Your task to perform on an android device: open a bookmark in the chrome app Image 0: 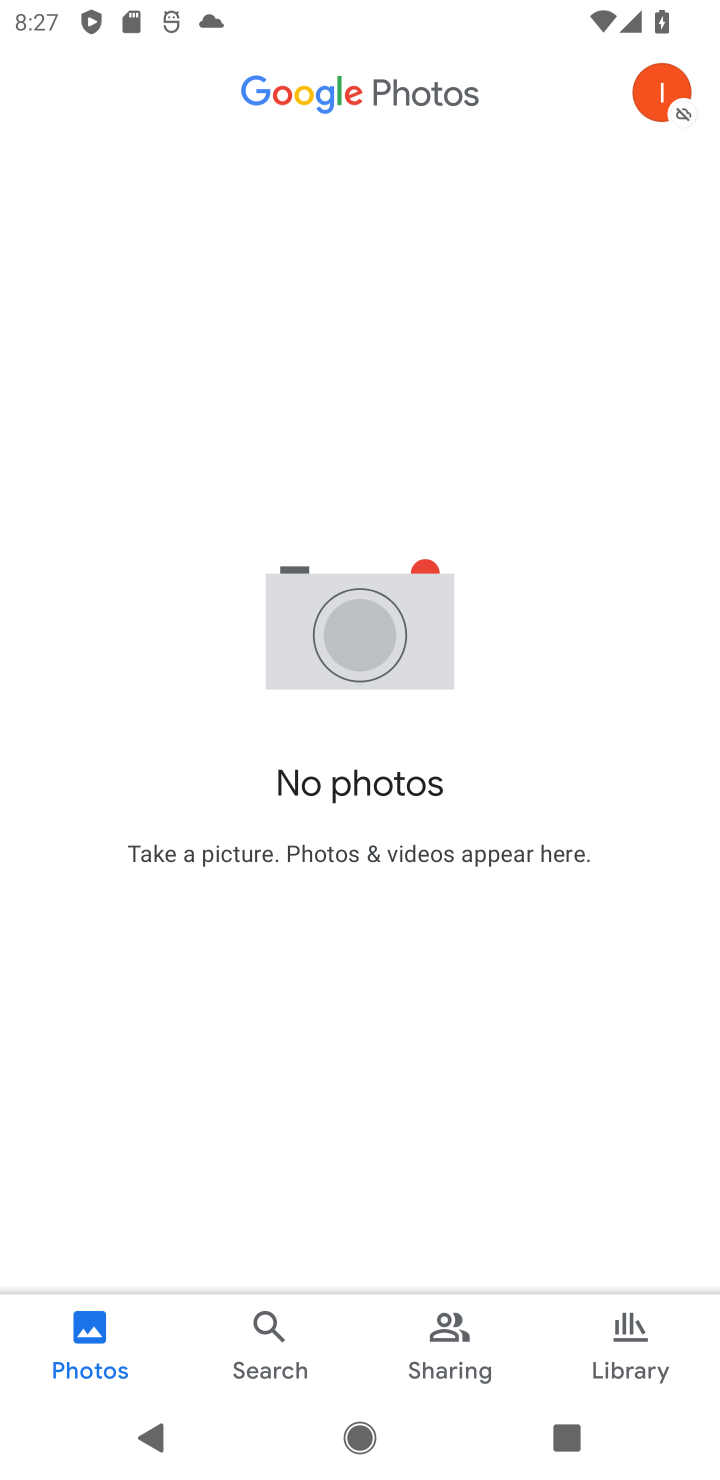
Step 0: press back button
Your task to perform on an android device: open a bookmark in the chrome app Image 1: 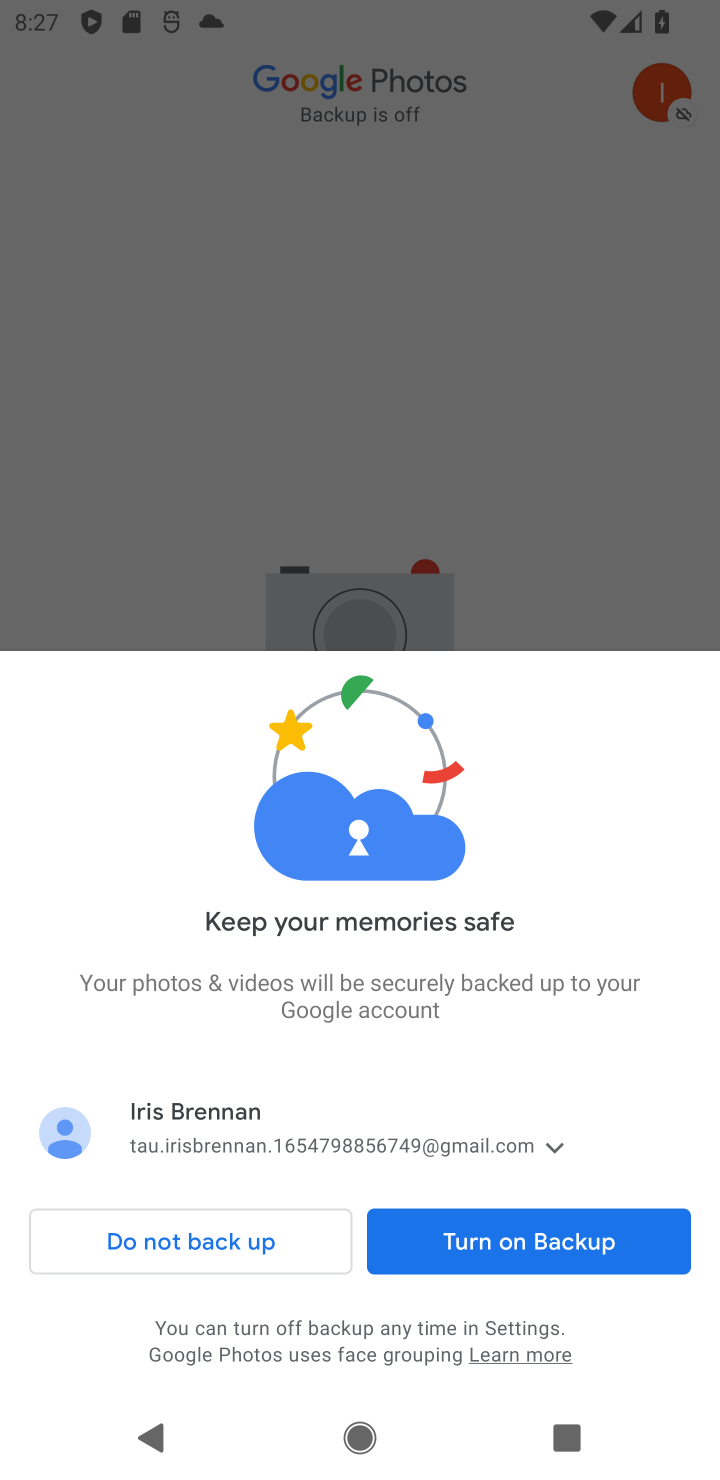
Step 1: press home button
Your task to perform on an android device: open a bookmark in the chrome app Image 2: 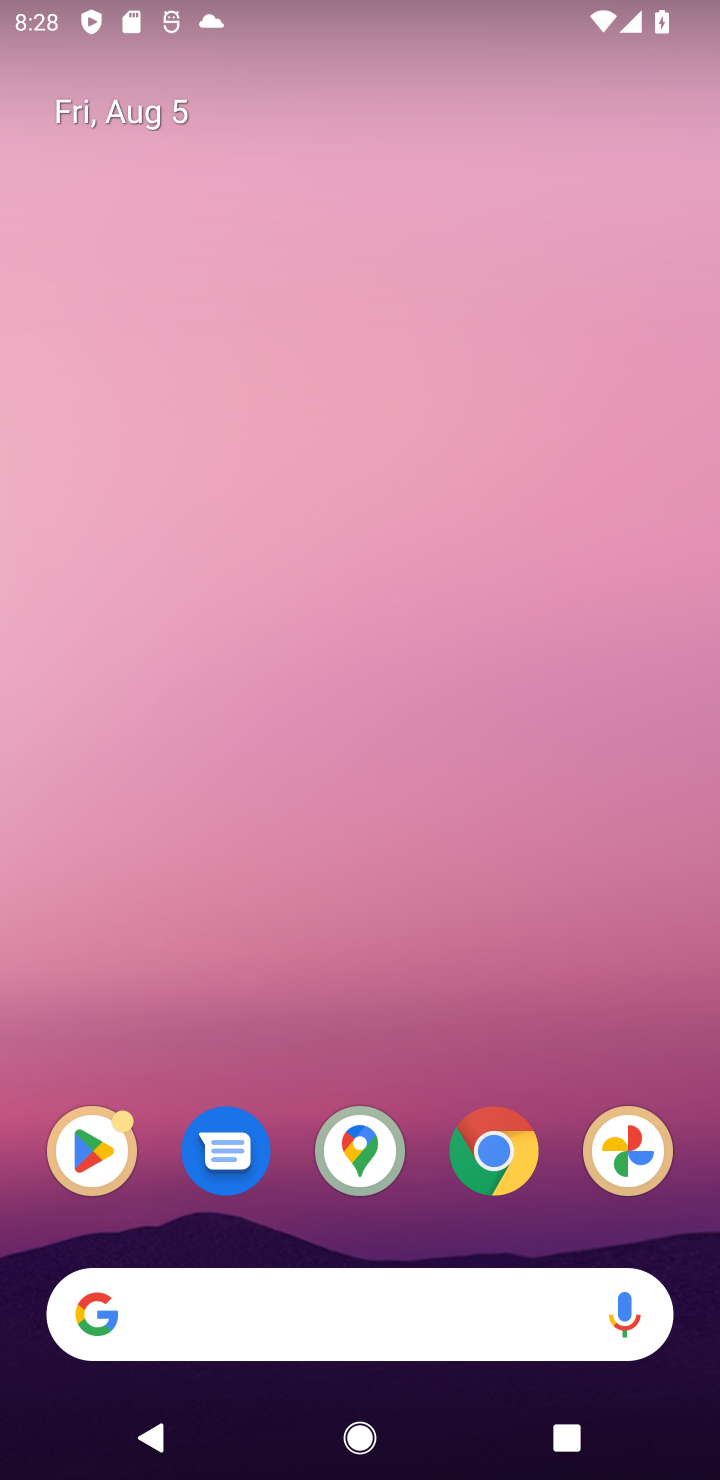
Step 2: click (487, 1147)
Your task to perform on an android device: open a bookmark in the chrome app Image 3: 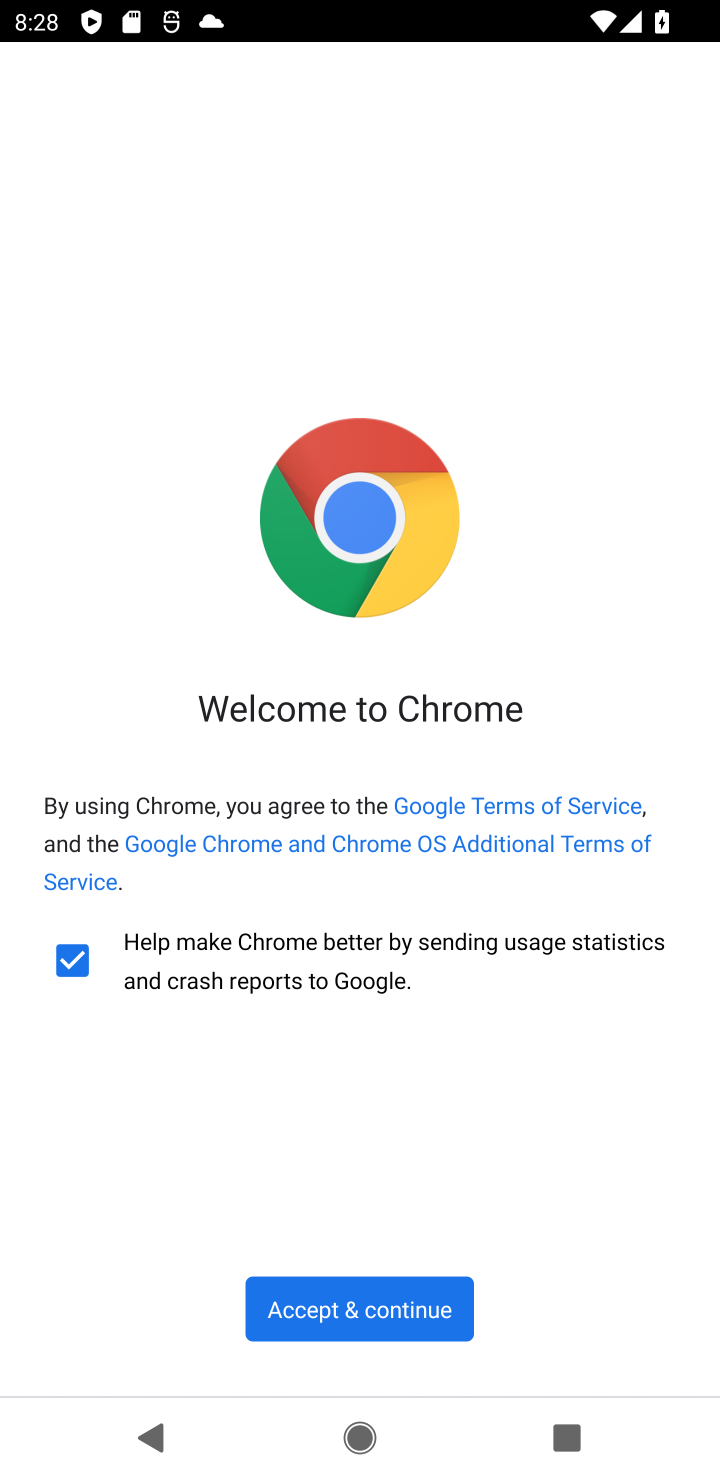
Step 3: click (341, 1297)
Your task to perform on an android device: open a bookmark in the chrome app Image 4: 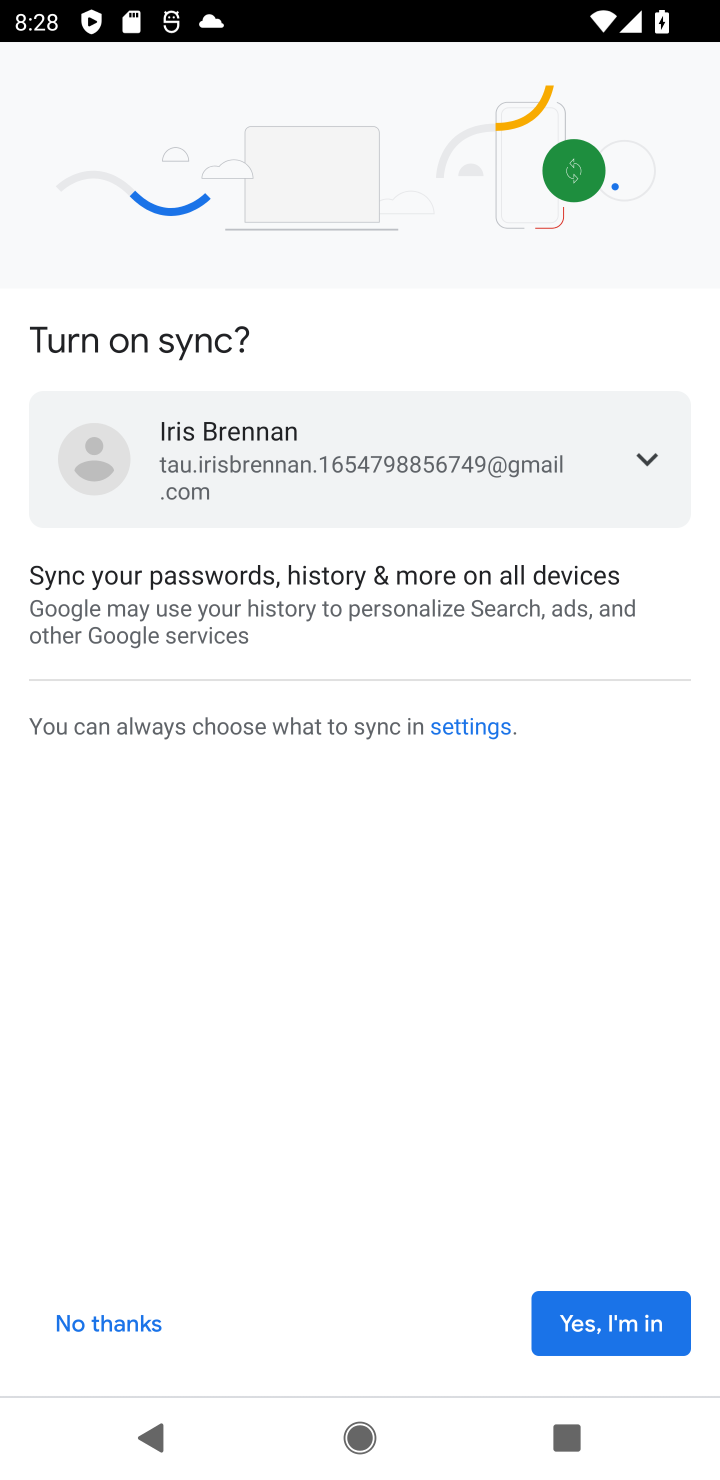
Step 4: click (576, 1325)
Your task to perform on an android device: open a bookmark in the chrome app Image 5: 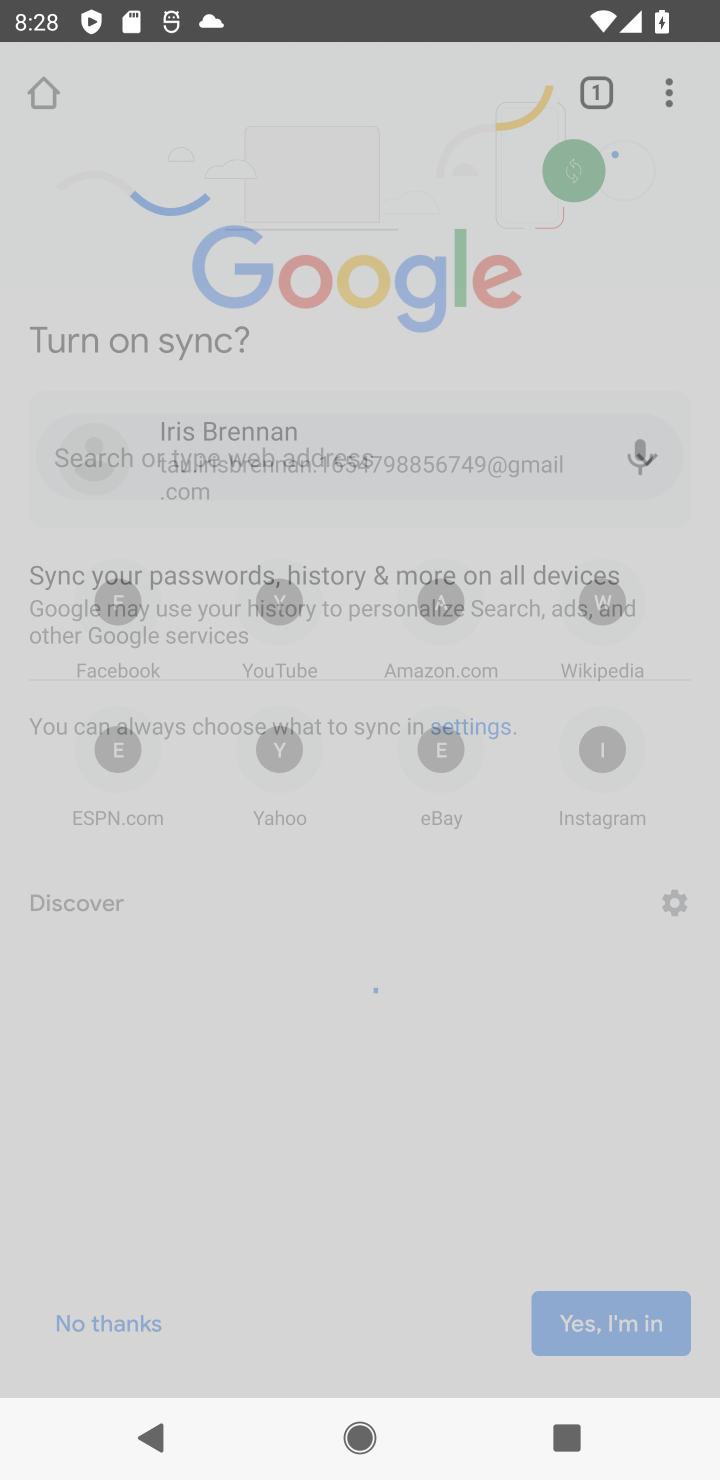
Step 5: click (576, 1325)
Your task to perform on an android device: open a bookmark in the chrome app Image 6: 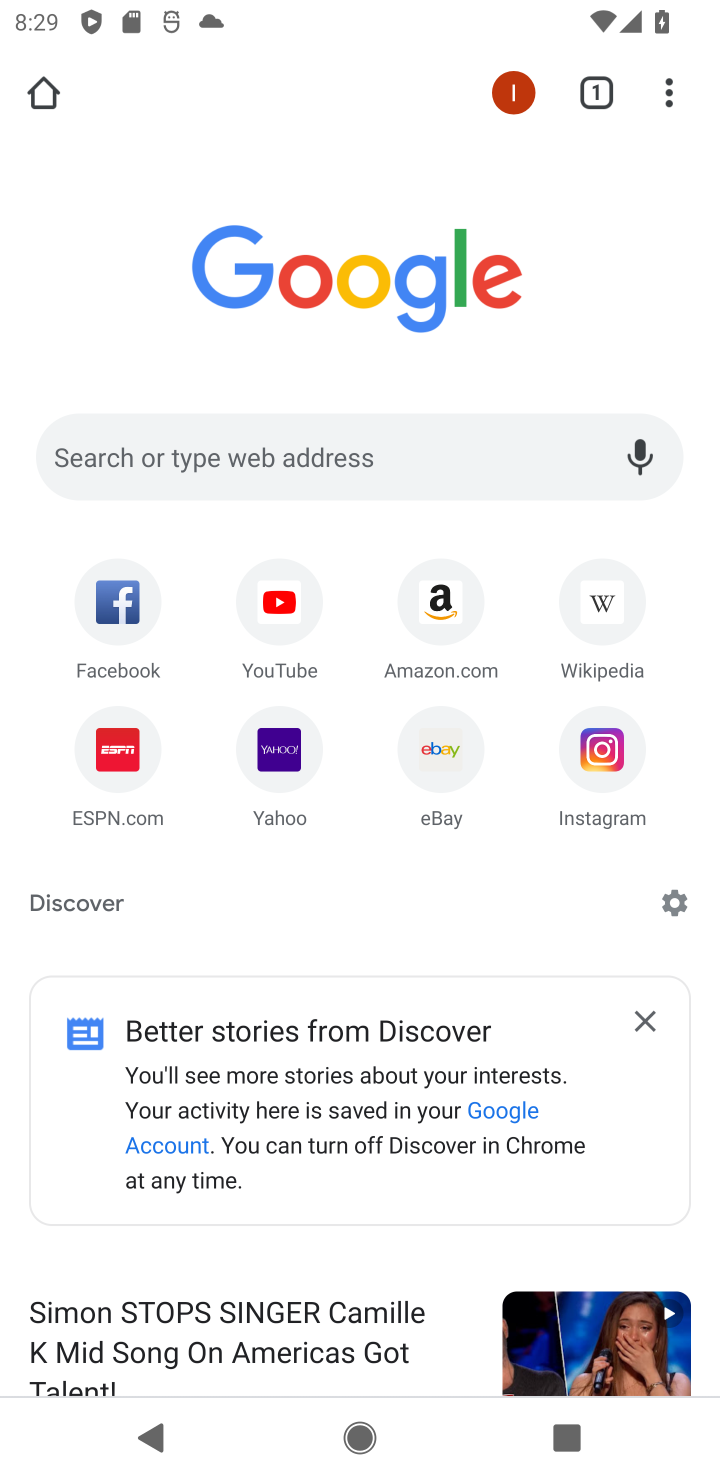
Step 6: click (666, 97)
Your task to perform on an android device: open a bookmark in the chrome app Image 7: 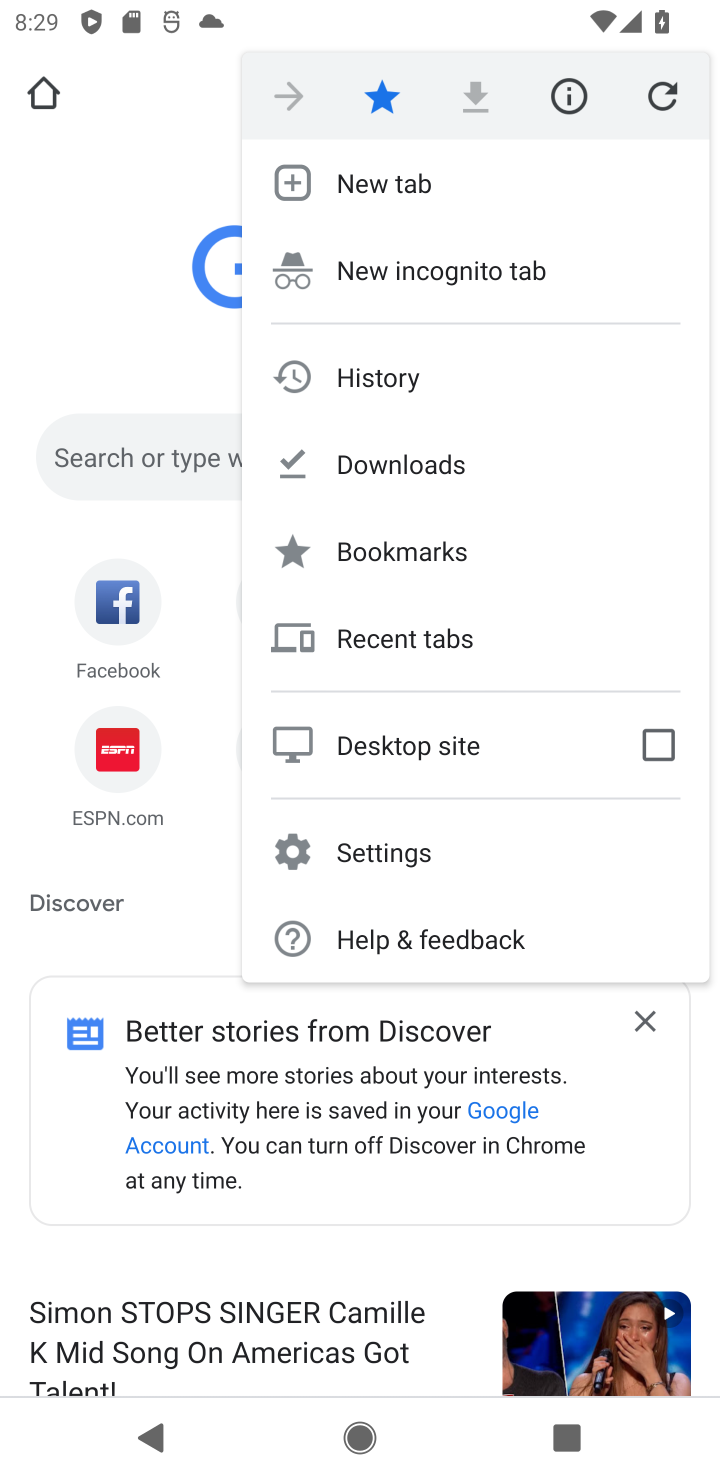
Step 7: click (405, 555)
Your task to perform on an android device: open a bookmark in the chrome app Image 8: 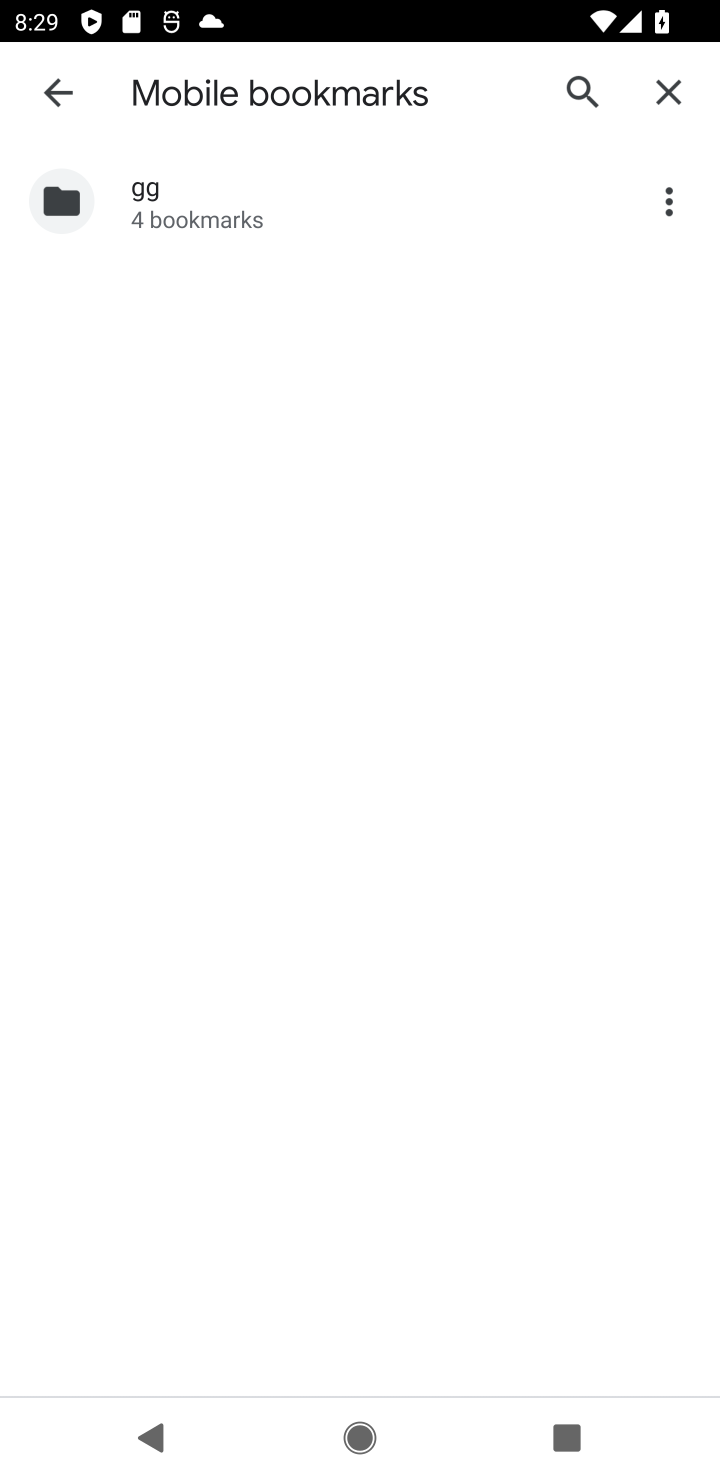
Step 8: click (224, 226)
Your task to perform on an android device: open a bookmark in the chrome app Image 9: 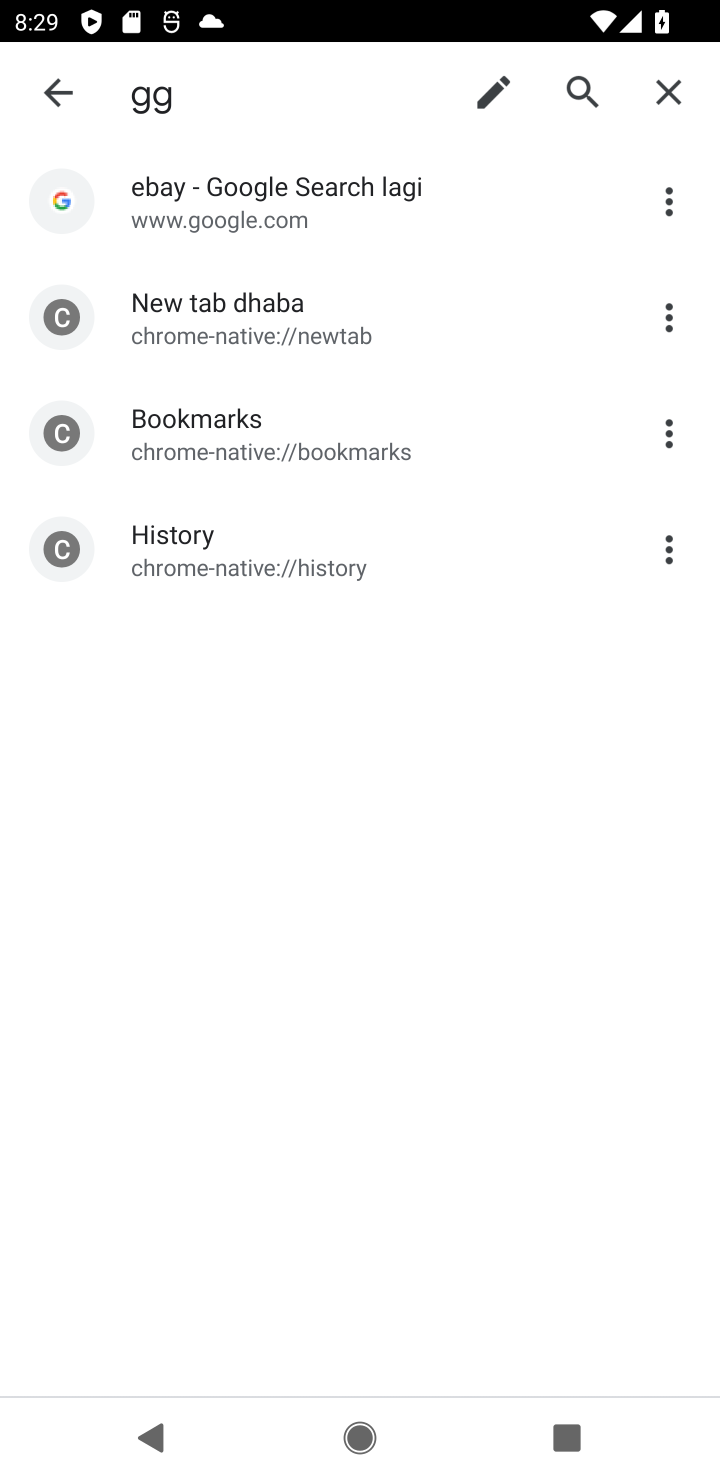
Step 9: click (274, 211)
Your task to perform on an android device: open a bookmark in the chrome app Image 10: 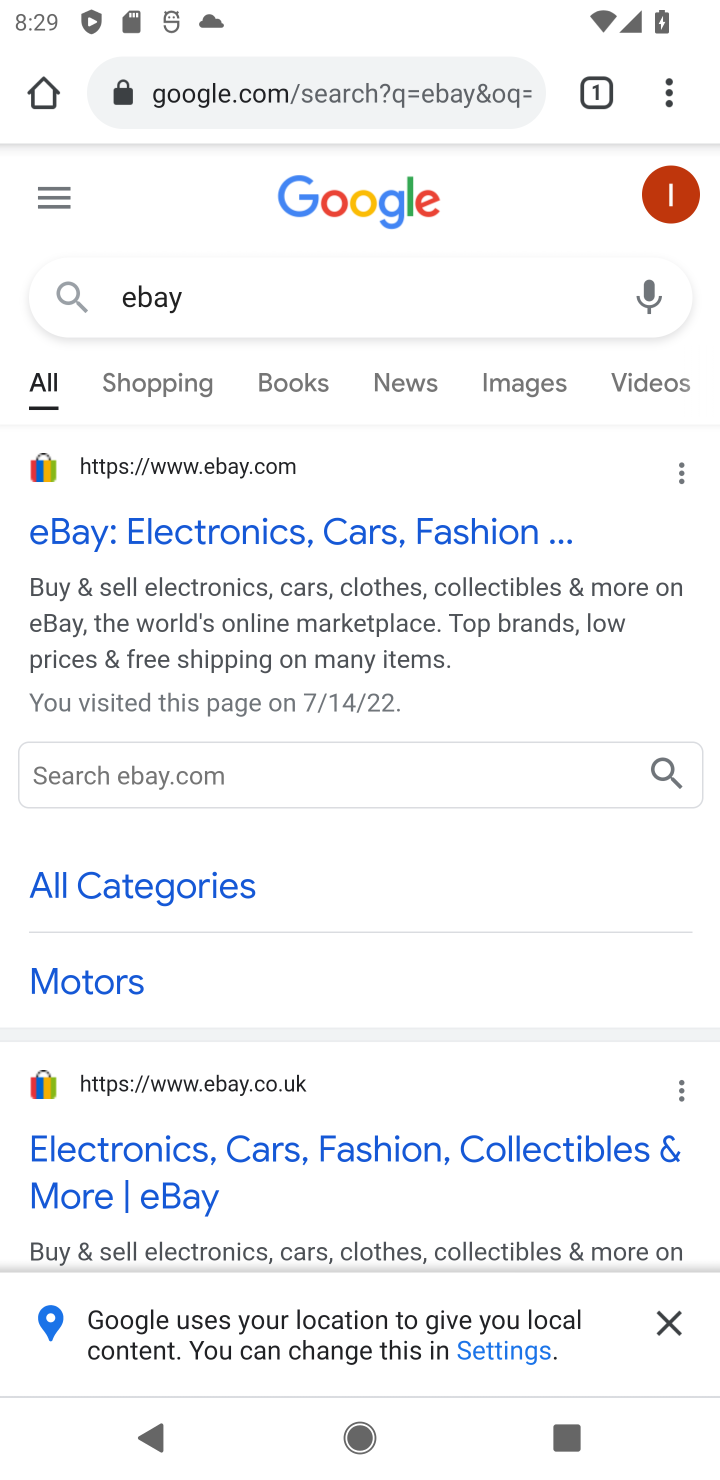
Step 10: task complete